Your task to perform on an android device: Open Google Maps Image 0: 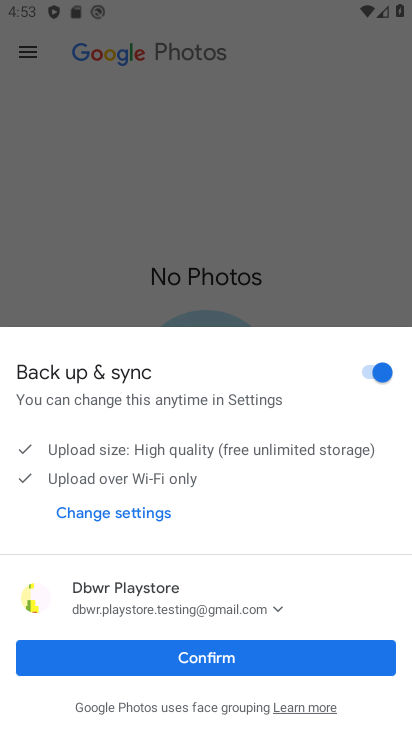
Step 0: press home button
Your task to perform on an android device: Open Google Maps Image 1: 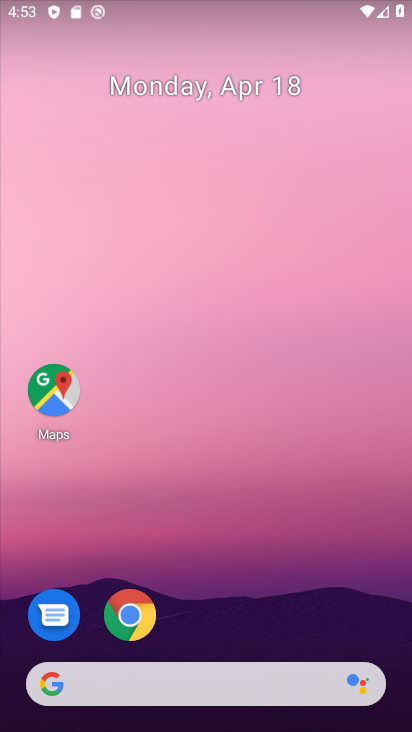
Step 1: click (49, 382)
Your task to perform on an android device: Open Google Maps Image 2: 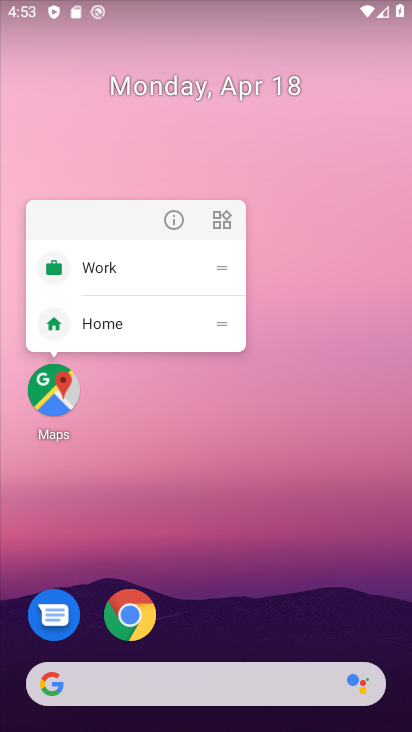
Step 2: drag from (292, 568) to (291, 81)
Your task to perform on an android device: Open Google Maps Image 3: 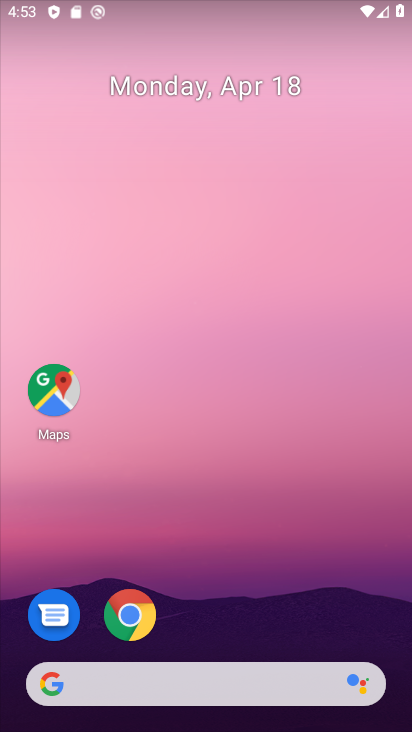
Step 3: drag from (297, 618) to (282, 103)
Your task to perform on an android device: Open Google Maps Image 4: 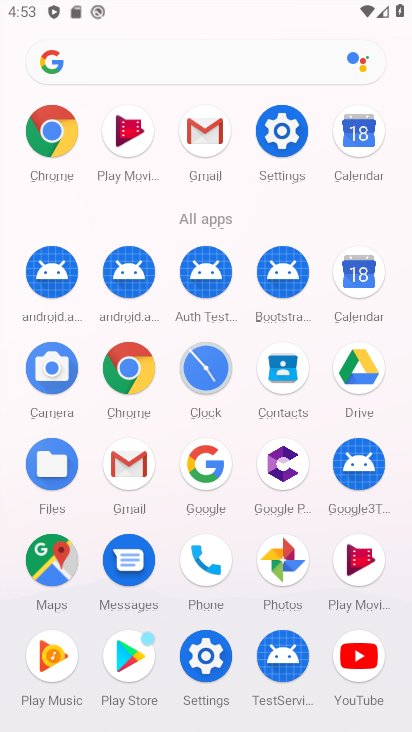
Step 4: click (45, 555)
Your task to perform on an android device: Open Google Maps Image 5: 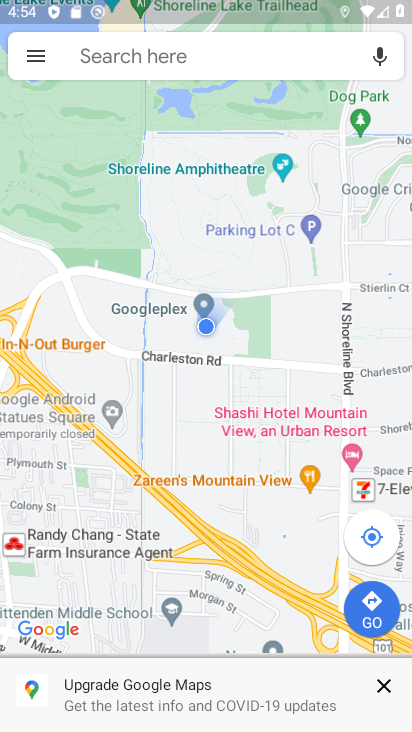
Step 5: task complete